Your task to perform on an android device: stop showing notifications on the lock screen Image 0: 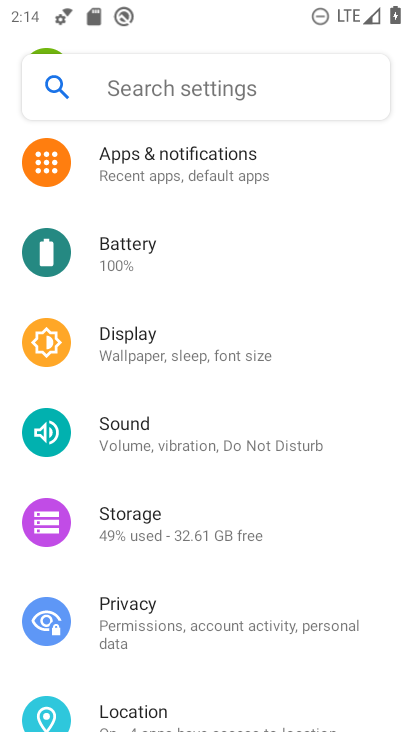
Step 0: drag from (257, 575) to (254, 666)
Your task to perform on an android device: stop showing notifications on the lock screen Image 1: 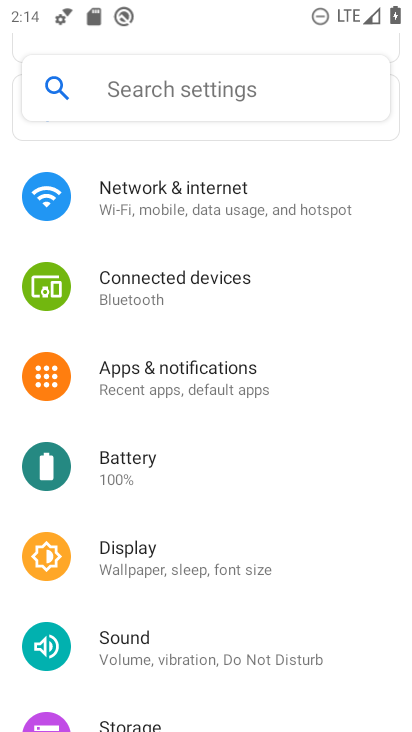
Step 1: click (141, 372)
Your task to perform on an android device: stop showing notifications on the lock screen Image 2: 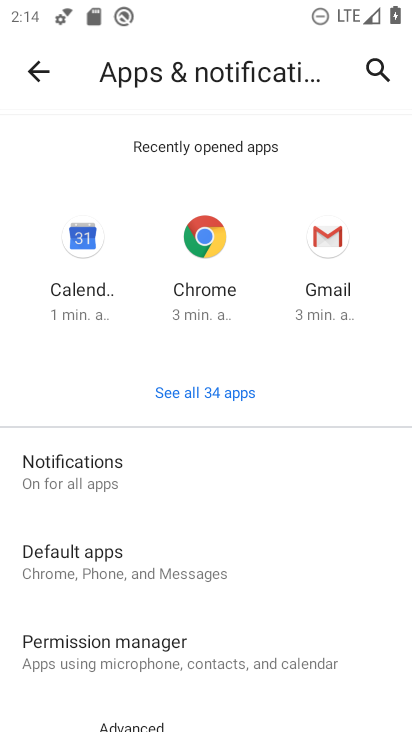
Step 2: click (169, 488)
Your task to perform on an android device: stop showing notifications on the lock screen Image 3: 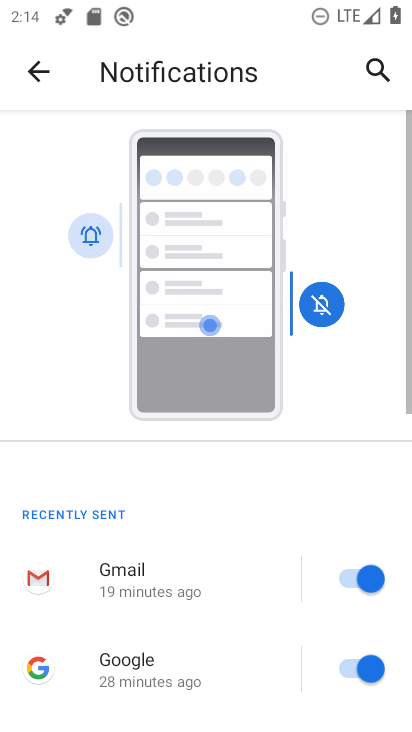
Step 3: drag from (198, 539) to (156, 115)
Your task to perform on an android device: stop showing notifications on the lock screen Image 4: 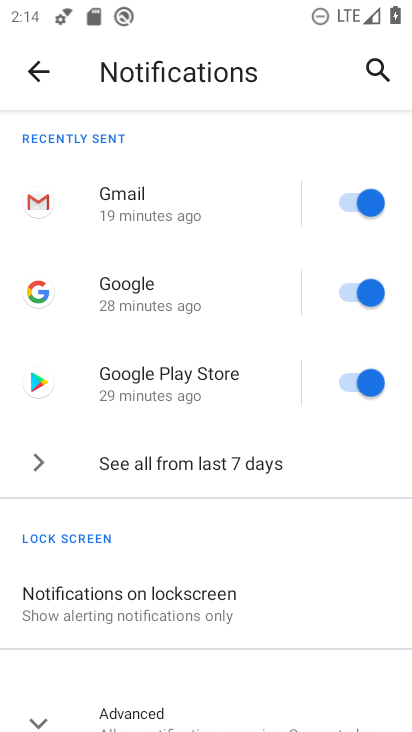
Step 4: click (179, 602)
Your task to perform on an android device: stop showing notifications on the lock screen Image 5: 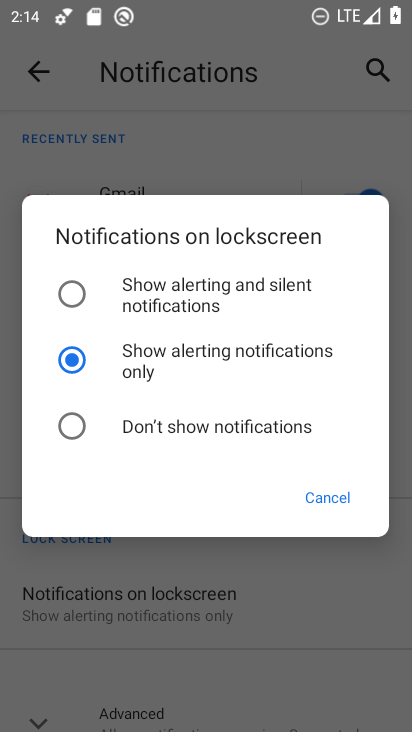
Step 5: click (193, 420)
Your task to perform on an android device: stop showing notifications on the lock screen Image 6: 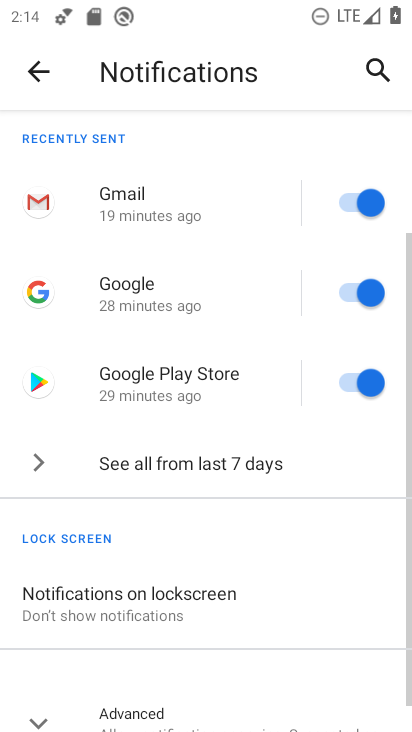
Step 6: task complete